Your task to perform on an android device: check out phone information Image 0: 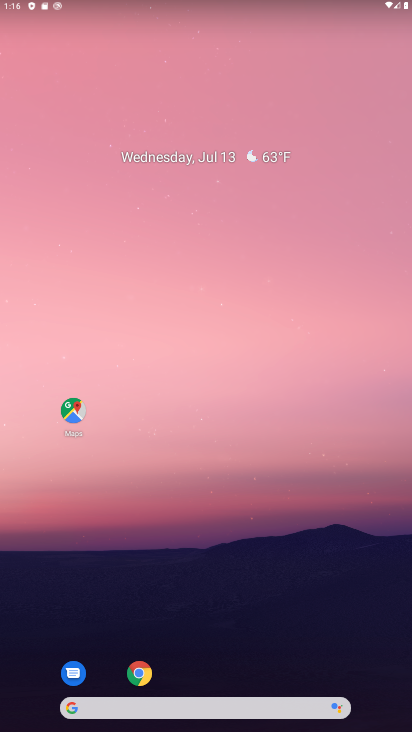
Step 0: drag from (238, 652) to (289, 191)
Your task to perform on an android device: check out phone information Image 1: 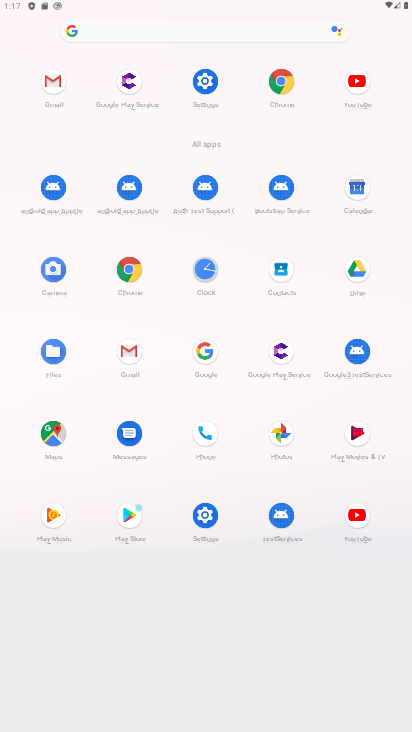
Step 1: click (208, 67)
Your task to perform on an android device: check out phone information Image 2: 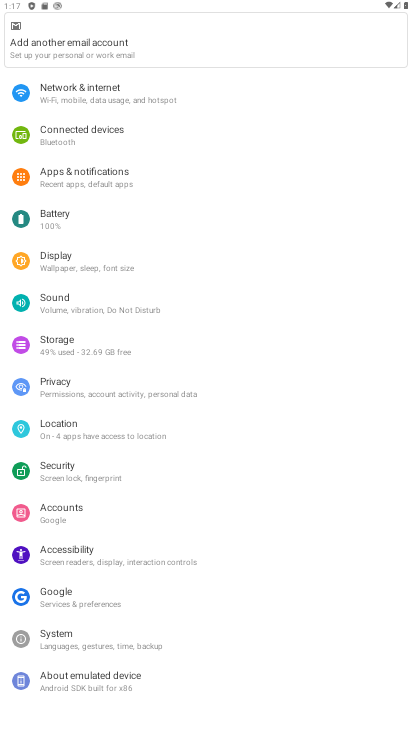
Step 2: click (134, 667)
Your task to perform on an android device: check out phone information Image 3: 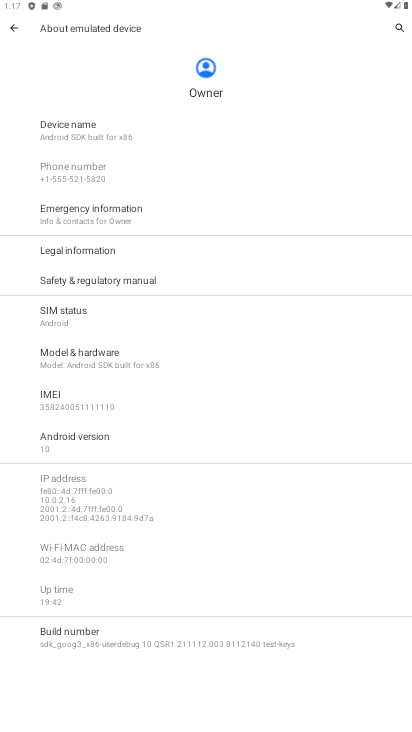
Step 3: task complete